Your task to perform on an android device: turn on wifi Image 0: 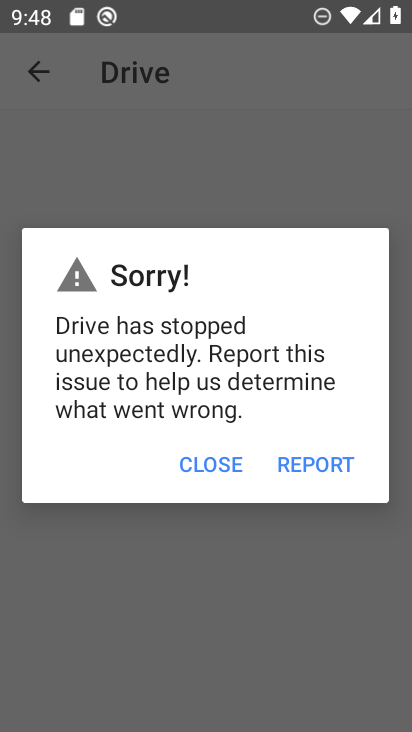
Step 0: press home button
Your task to perform on an android device: turn on wifi Image 1: 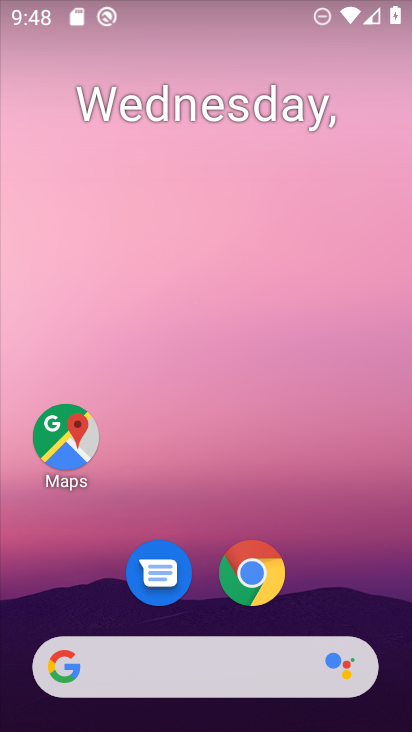
Step 1: drag from (387, 629) to (391, 83)
Your task to perform on an android device: turn on wifi Image 2: 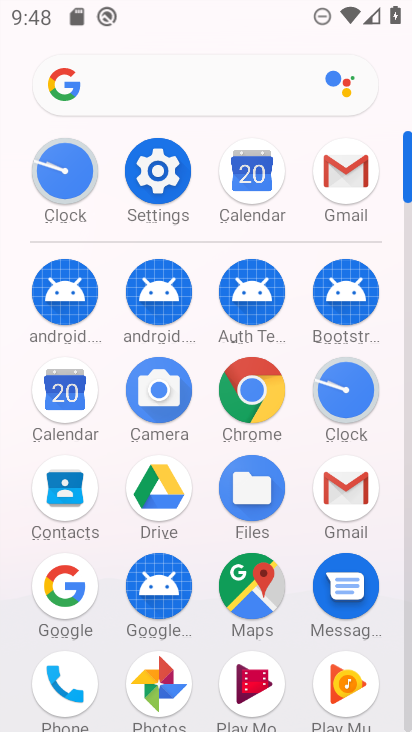
Step 2: click (164, 166)
Your task to perform on an android device: turn on wifi Image 3: 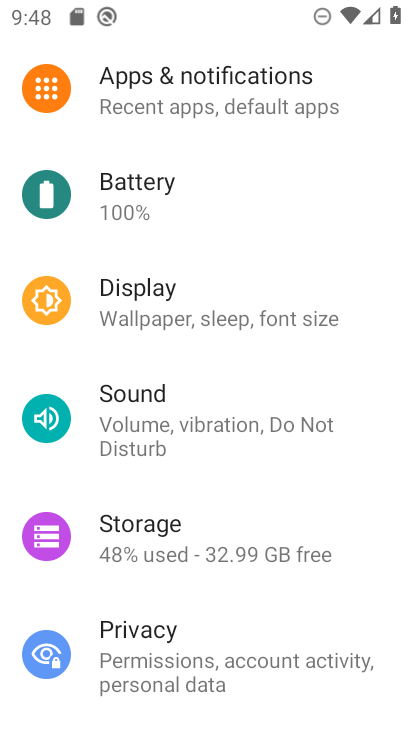
Step 3: drag from (350, 204) to (360, 472)
Your task to perform on an android device: turn on wifi Image 4: 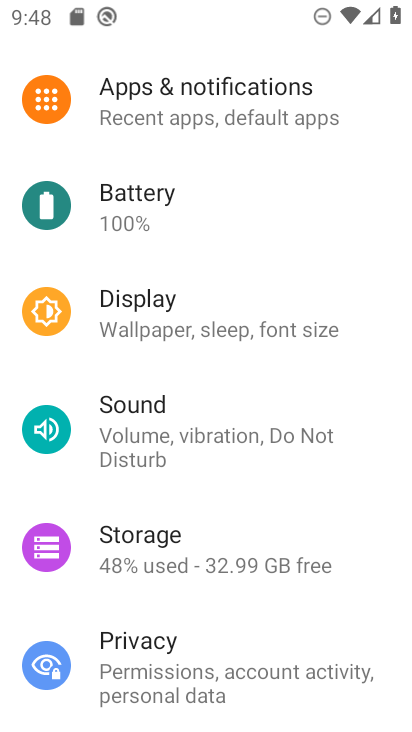
Step 4: drag from (341, 97) to (369, 572)
Your task to perform on an android device: turn on wifi Image 5: 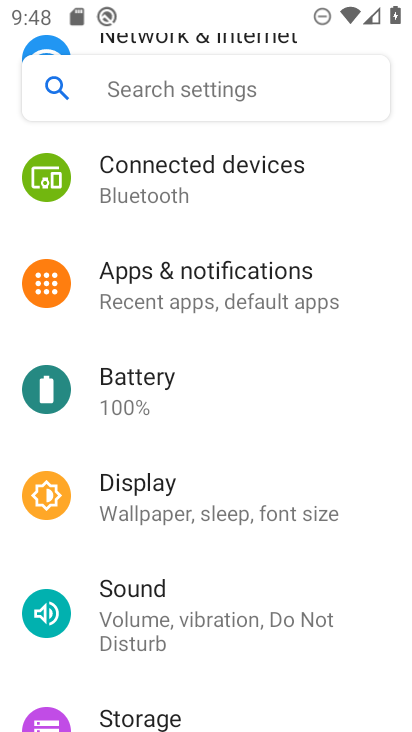
Step 5: drag from (384, 181) to (395, 599)
Your task to perform on an android device: turn on wifi Image 6: 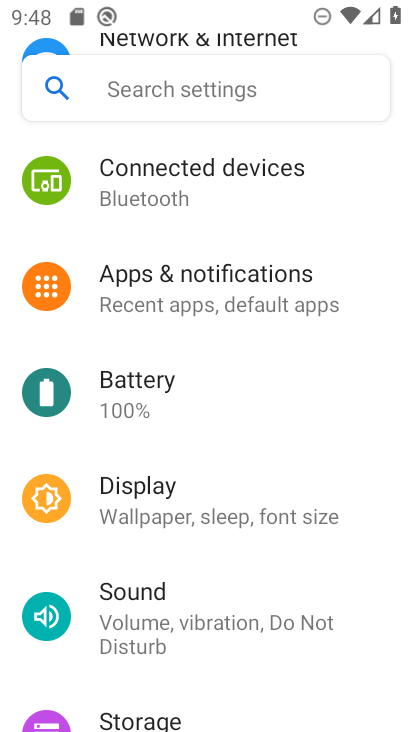
Step 6: drag from (382, 424) to (367, 631)
Your task to perform on an android device: turn on wifi Image 7: 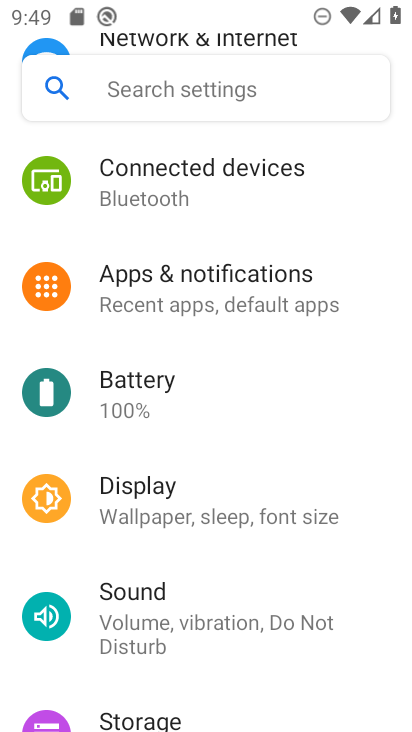
Step 7: drag from (374, 218) to (405, 557)
Your task to perform on an android device: turn on wifi Image 8: 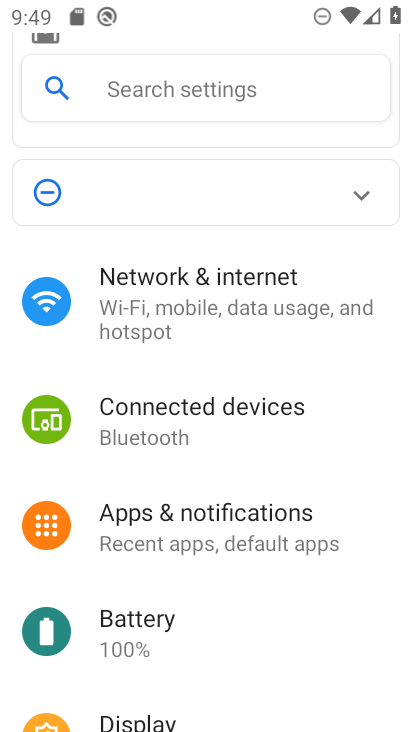
Step 8: click (157, 284)
Your task to perform on an android device: turn on wifi Image 9: 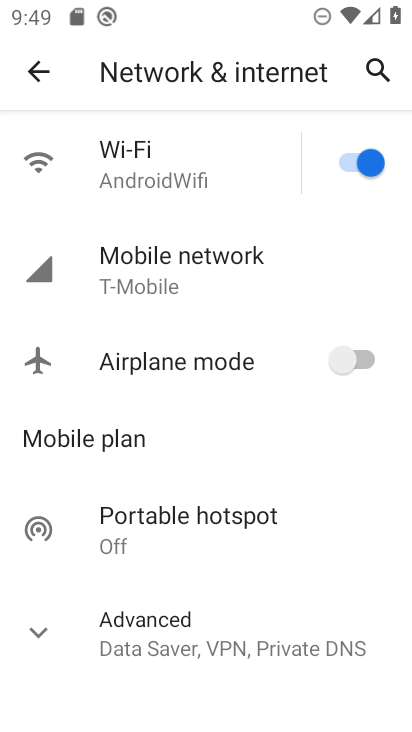
Step 9: task complete